Your task to perform on an android device: Open my contact list Image 0: 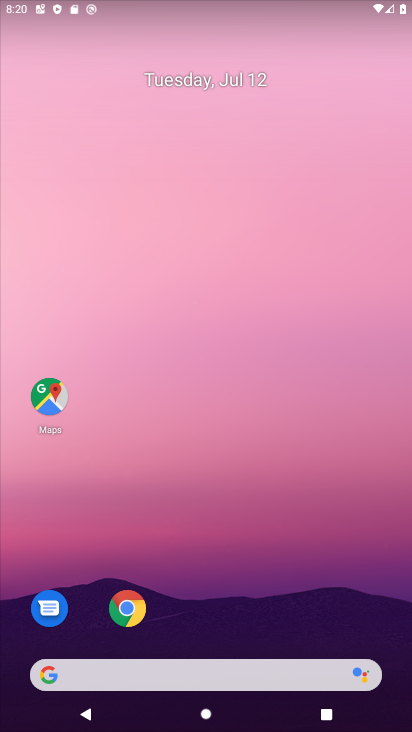
Step 0: drag from (224, 618) to (258, 48)
Your task to perform on an android device: Open my contact list Image 1: 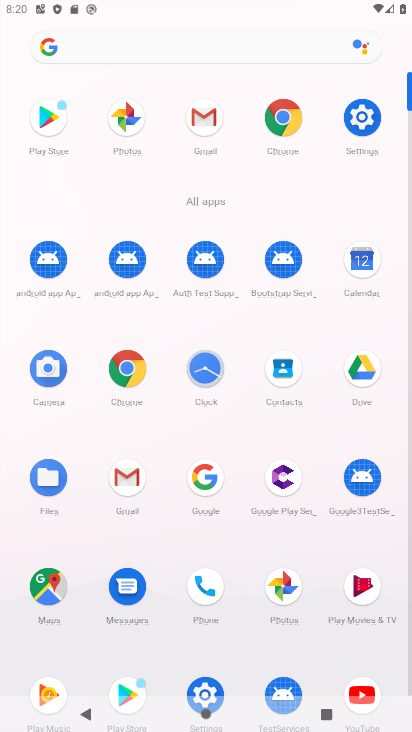
Step 1: click (253, 346)
Your task to perform on an android device: Open my contact list Image 2: 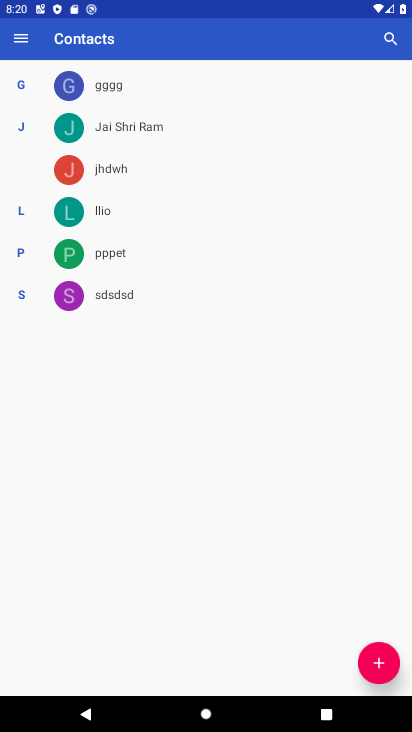
Step 2: task complete